Your task to perform on an android device: Set the phone to "Do not disturb". Image 0: 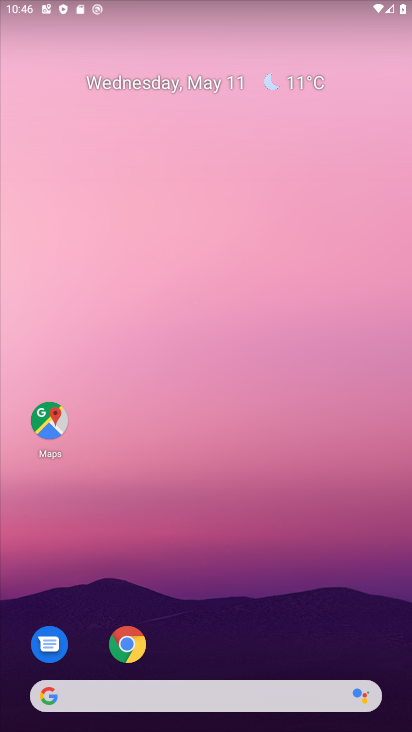
Step 0: drag from (217, 668) to (214, 10)
Your task to perform on an android device: Set the phone to "Do not disturb". Image 1: 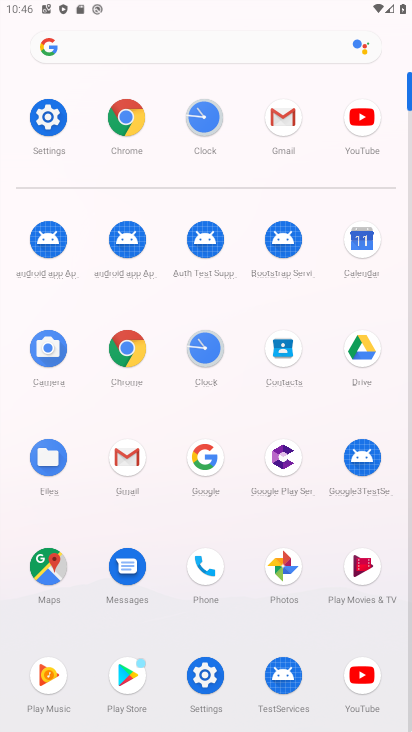
Step 1: click (51, 128)
Your task to perform on an android device: Set the phone to "Do not disturb". Image 2: 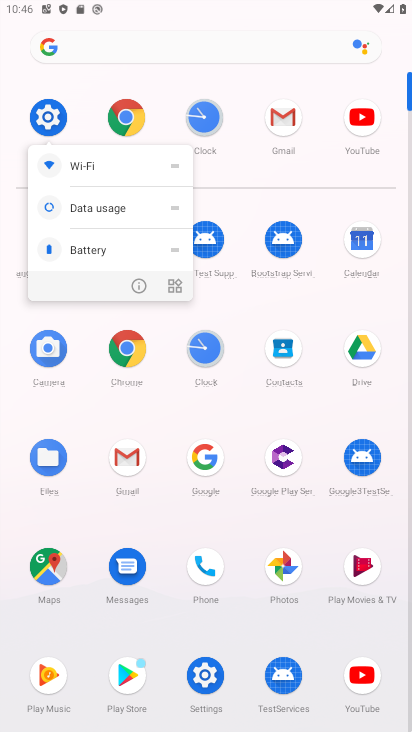
Step 2: click (45, 119)
Your task to perform on an android device: Set the phone to "Do not disturb". Image 3: 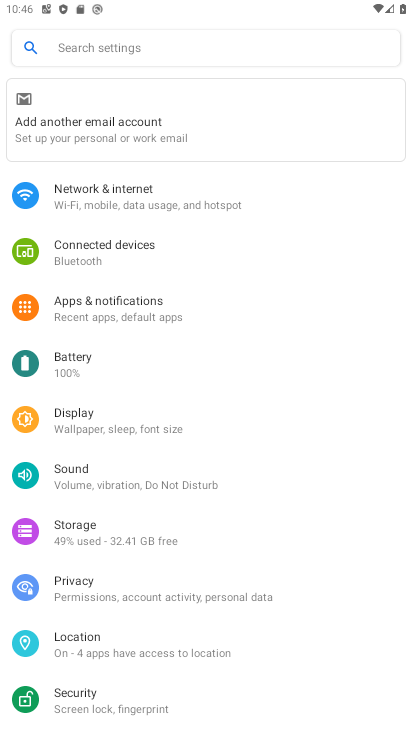
Step 3: click (93, 474)
Your task to perform on an android device: Set the phone to "Do not disturb". Image 4: 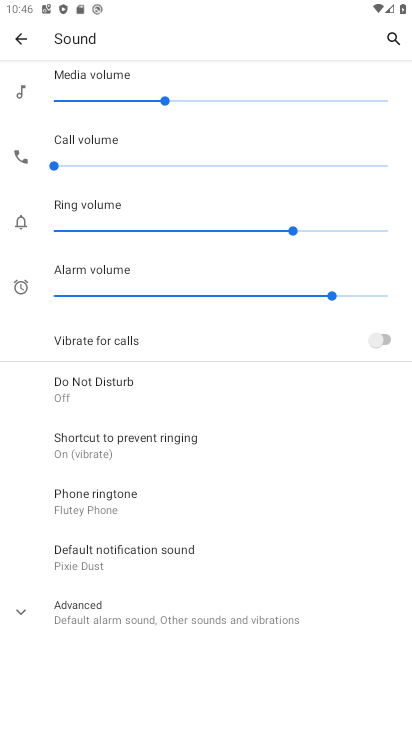
Step 4: click (67, 378)
Your task to perform on an android device: Set the phone to "Do not disturb". Image 5: 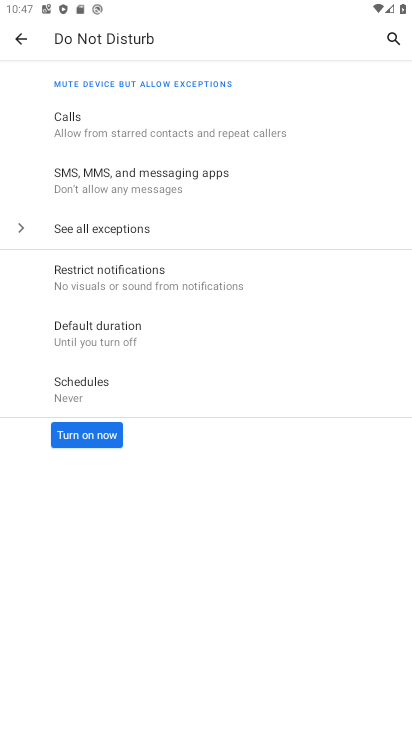
Step 5: click (82, 442)
Your task to perform on an android device: Set the phone to "Do not disturb". Image 6: 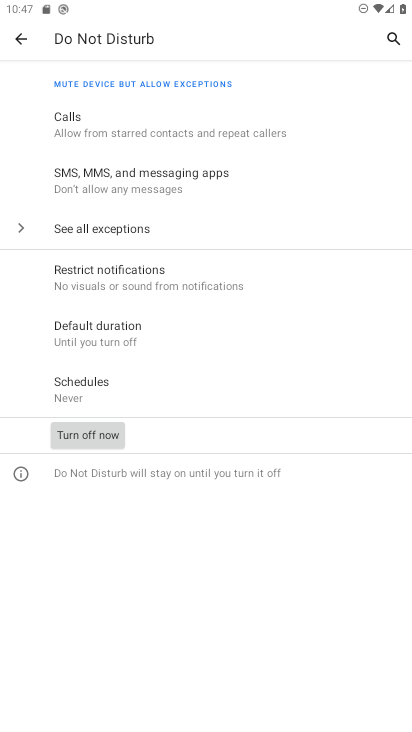
Step 6: task complete